Your task to perform on an android device: Open display settings Image 0: 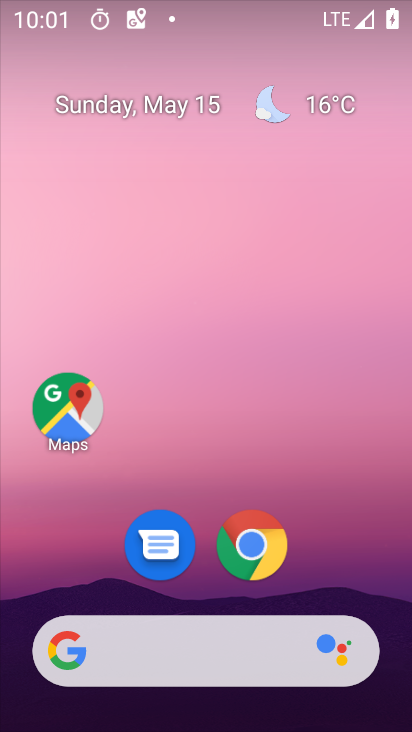
Step 0: drag from (347, 562) to (177, 85)
Your task to perform on an android device: Open display settings Image 1: 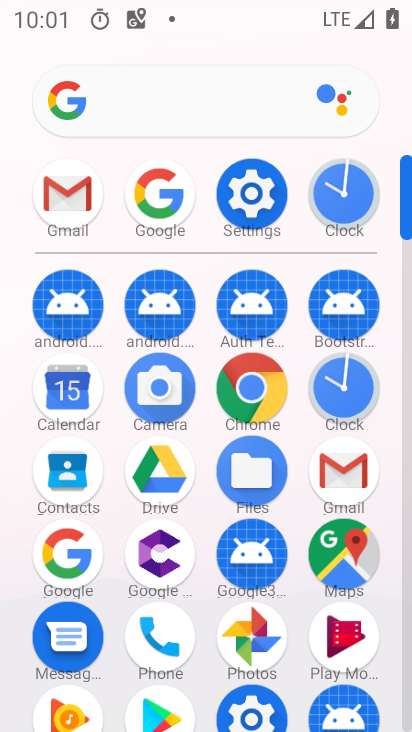
Step 1: click (249, 194)
Your task to perform on an android device: Open display settings Image 2: 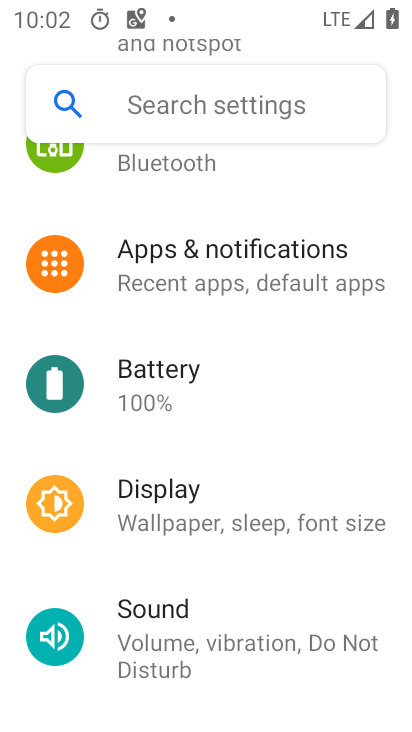
Step 2: click (177, 504)
Your task to perform on an android device: Open display settings Image 3: 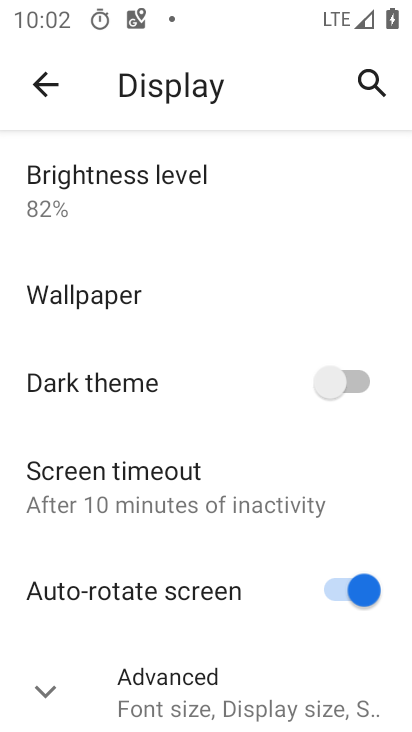
Step 3: task complete